Your task to perform on an android device: find snoozed emails in the gmail app Image 0: 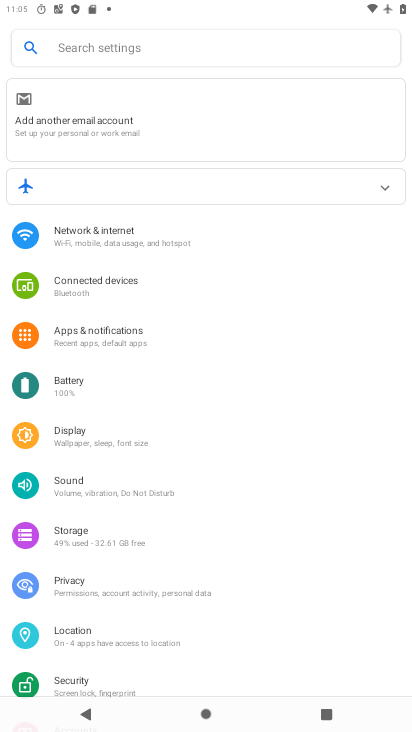
Step 0: press home button
Your task to perform on an android device: find snoozed emails in the gmail app Image 1: 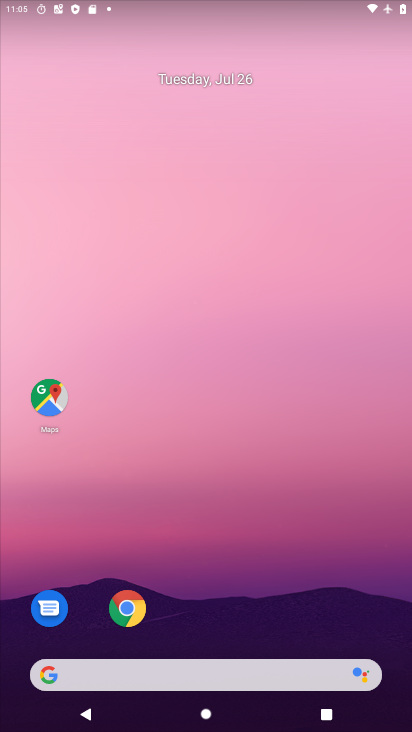
Step 1: drag from (185, 502) to (185, 122)
Your task to perform on an android device: find snoozed emails in the gmail app Image 2: 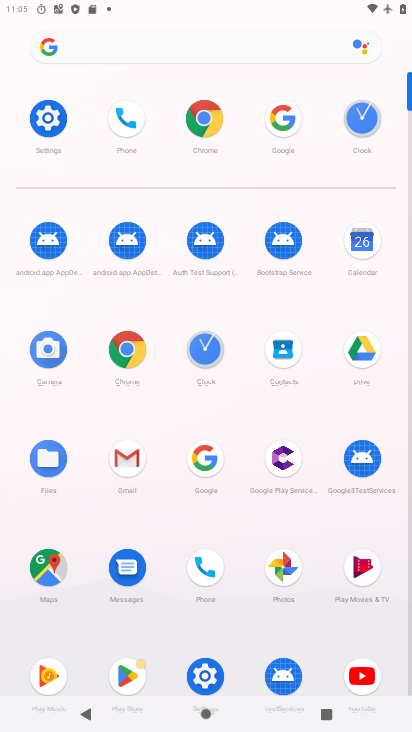
Step 2: click (143, 461)
Your task to perform on an android device: find snoozed emails in the gmail app Image 3: 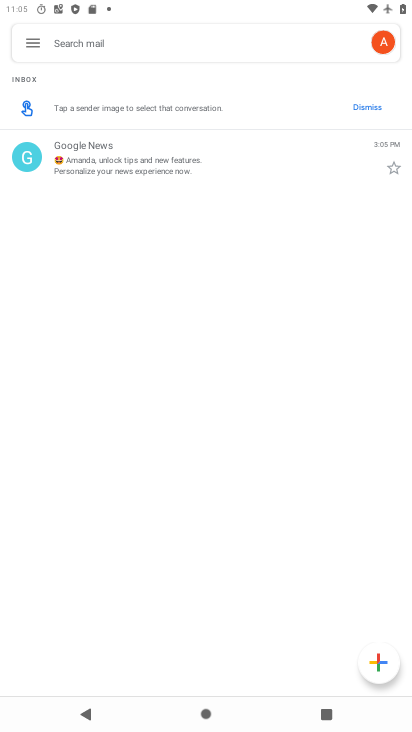
Step 3: click (30, 51)
Your task to perform on an android device: find snoozed emails in the gmail app Image 4: 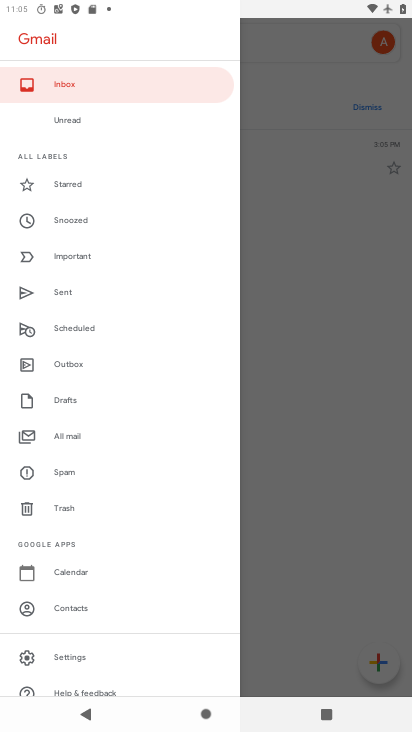
Step 4: click (73, 221)
Your task to perform on an android device: find snoozed emails in the gmail app Image 5: 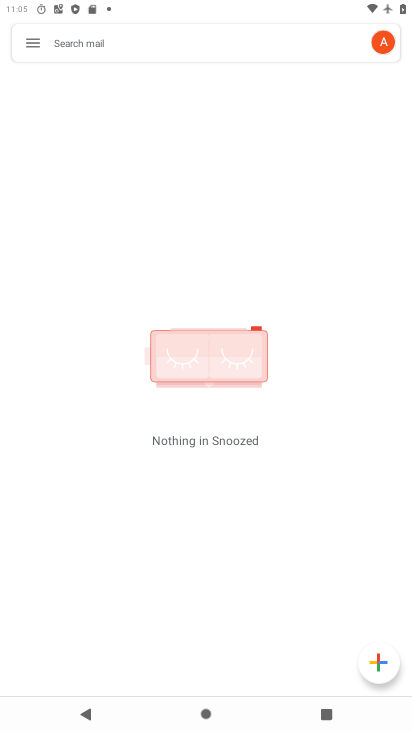
Step 5: task complete